Your task to perform on an android device: toggle show notifications on the lock screen Image 0: 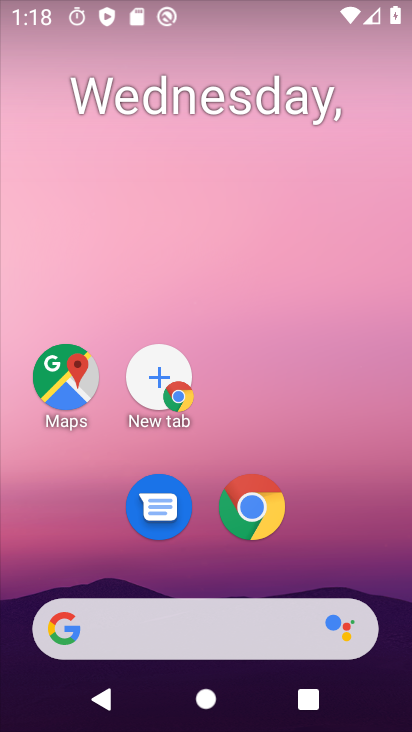
Step 0: drag from (350, 486) to (354, 143)
Your task to perform on an android device: toggle show notifications on the lock screen Image 1: 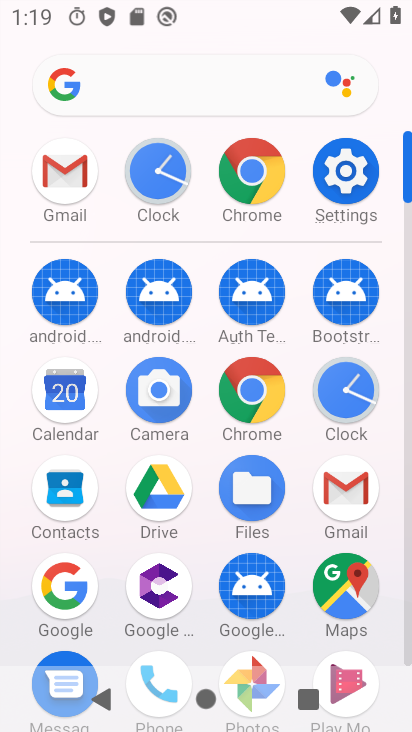
Step 1: click (345, 177)
Your task to perform on an android device: toggle show notifications on the lock screen Image 2: 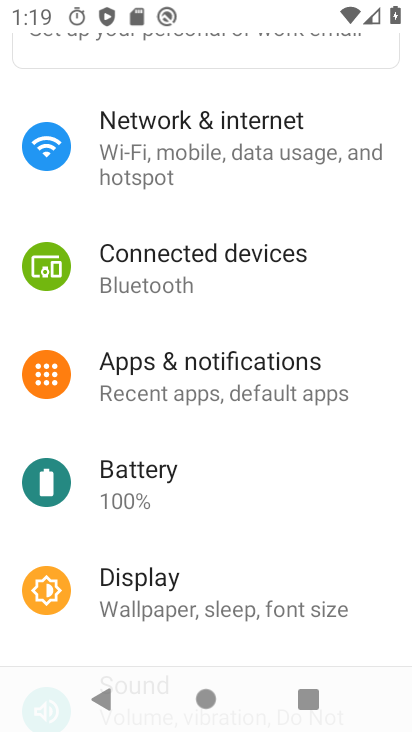
Step 2: click (268, 378)
Your task to perform on an android device: toggle show notifications on the lock screen Image 3: 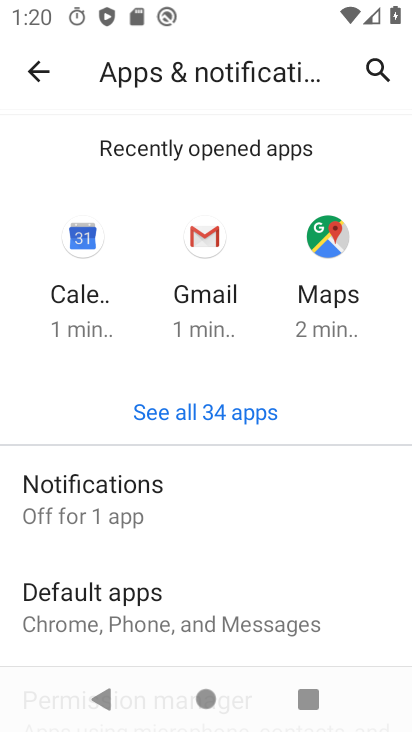
Step 3: drag from (229, 633) to (273, 264)
Your task to perform on an android device: toggle show notifications on the lock screen Image 4: 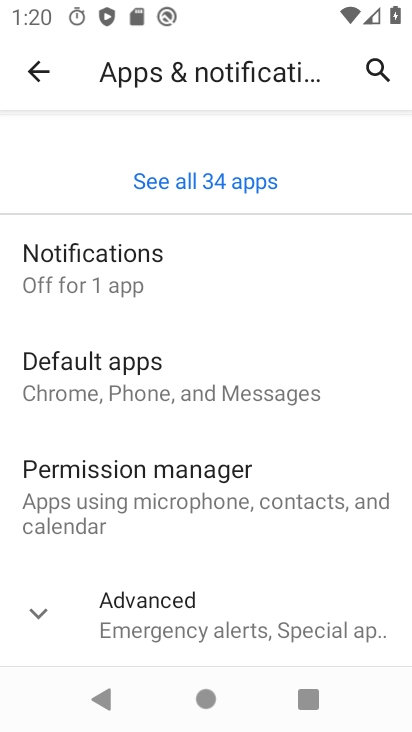
Step 4: drag from (245, 511) to (250, 253)
Your task to perform on an android device: toggle show notifications on the lock screen Image 5: 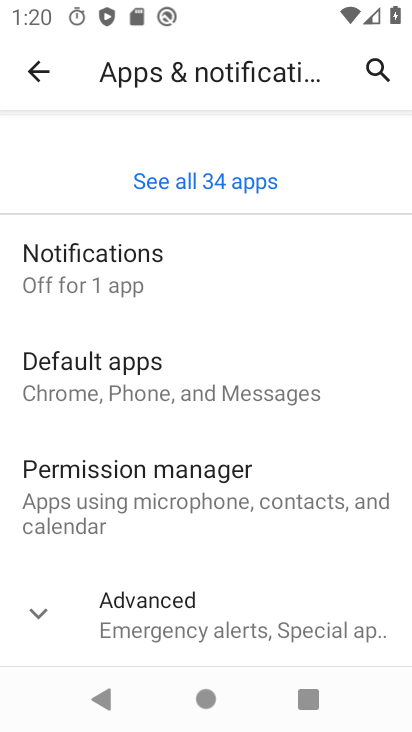
Step 5: click (144, 591)
Your task to perform on an android device: toggle show notifications on the lock screen Image 6: 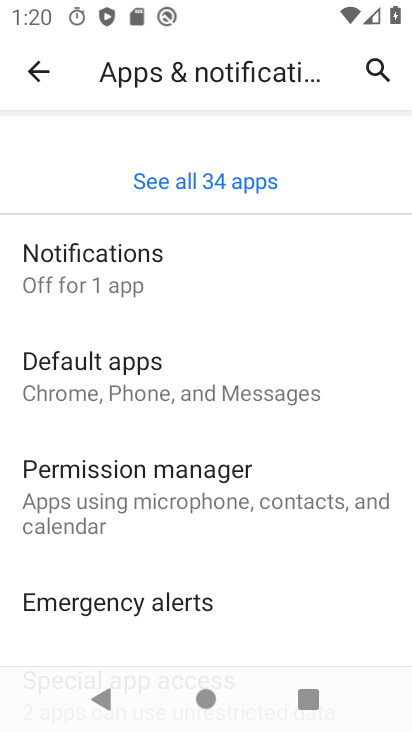
Step 6: drag from (221, 593) to (305, 266)
Your task to perform on an android device: toggle show notifications on the lock screen Image 7: 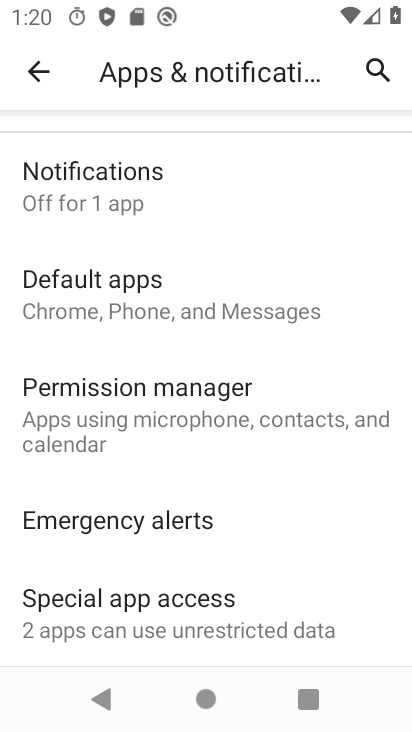
Step 7: drag from (256, 559) to (263, 187)
Your task to perform on an android device: toggle show notifications on the lock screen Image 8: 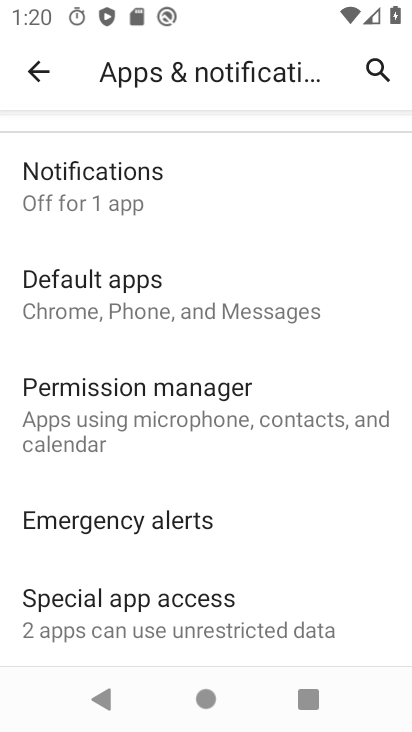
Step 8: drag from (262, 206) to (158, 620)
Your task to perform on an android device: toggle show notifications on the lock screen Image 9: 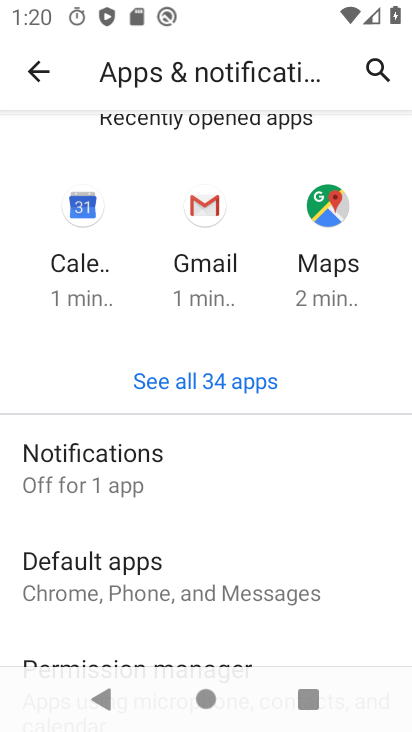
Step 9: click (97, 473)
Your task to perform on an android device: toggle show notifications on the lock screen Image 10: 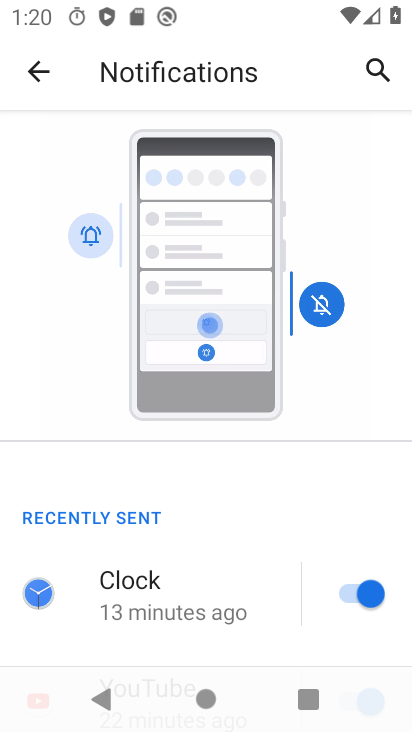
Step 10: drag from (132, 522) to (139, 246)
Your task to perform on an android device: toggle show notifications on the lock screen Image 11: 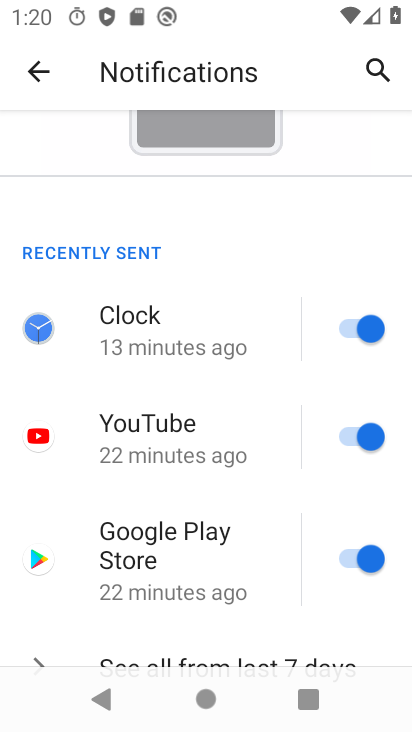
Step 11: drag from (146, 517) to (177, 270)
Your task to perform on an android device: toggle show notifications on the lock screen Image 12: 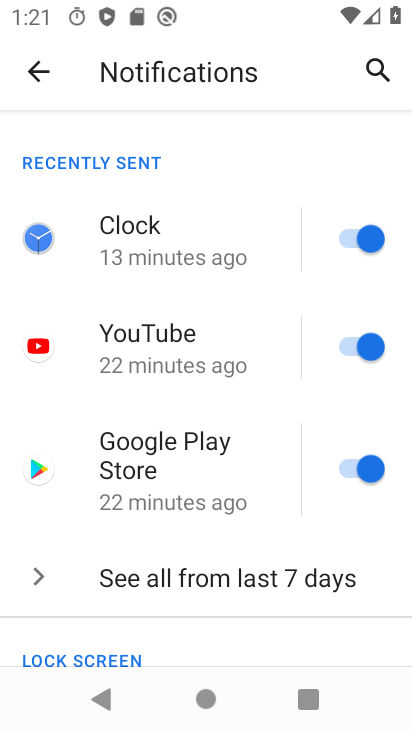
Step 12: drag from (226, 570) to (260, 211)
Your task to perform on an android device: toggle show notifications on the lock screen Image 13: 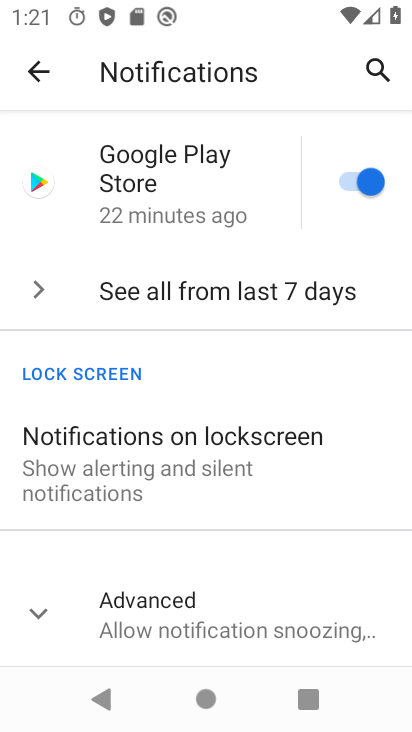
Step 13: click (166, 436)
Your task to perform on an android device: toggle show notifications on the lock screen Image 14: 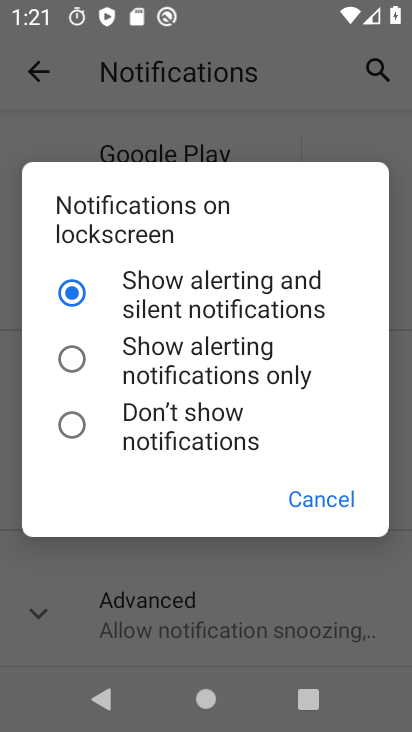
Step 14: click (66, 370)
Your task to perform on an android device: toggle show notifications on the lock screen Image 15: 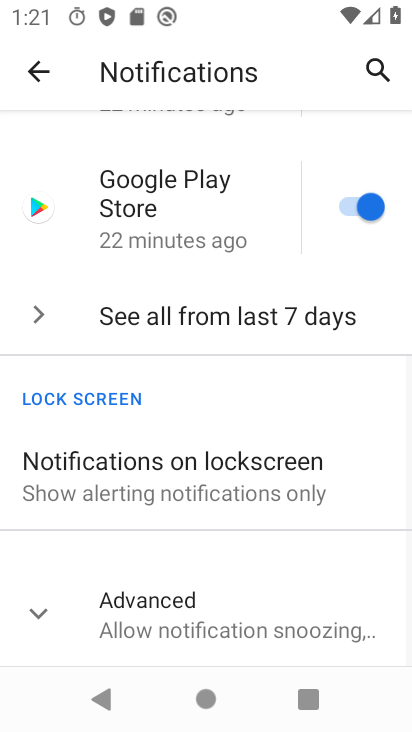
Step 15: task complete